Your task to perform on an android device: Open maps Image 0: 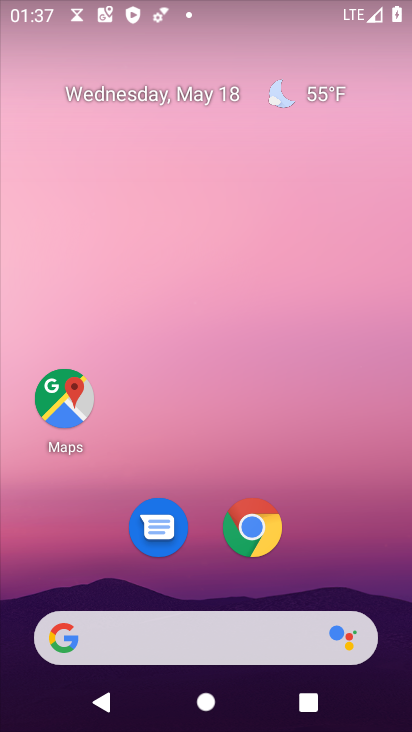
Step 0: click (67, 383)
Your task to perform on an android device: Open maps Image 1: 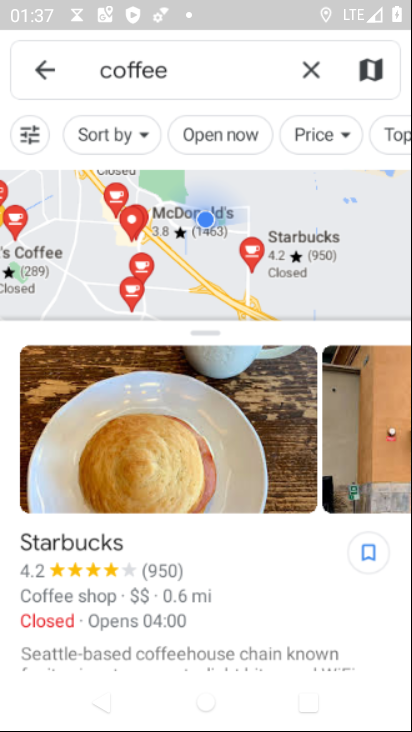
Step 1: task complete